Your task to perform on an android device: open sync settings in chrome Image 0: 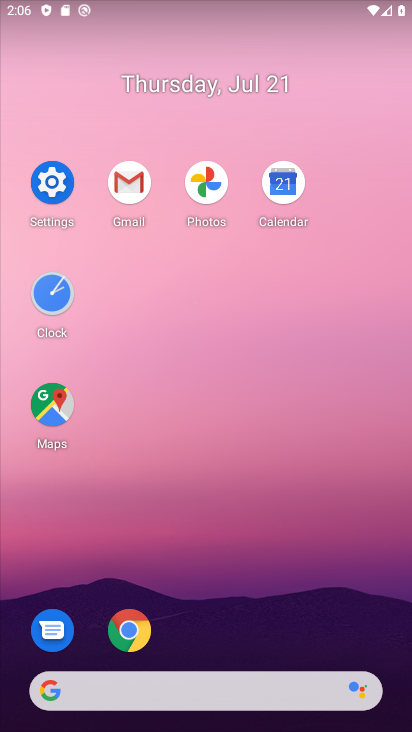
Step 0: click (127, 607)
Your task to perform on an android device: open sync settings in chrome Image 1: 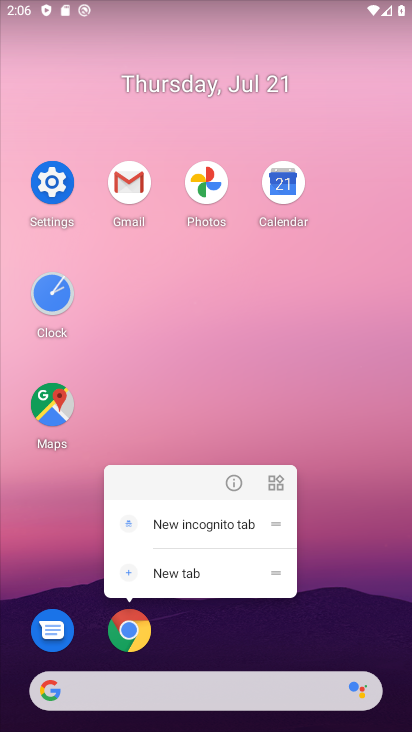
Step 1: click (136, 620)
Your task to perform on an android device: open sync settings in chrome Image 2: 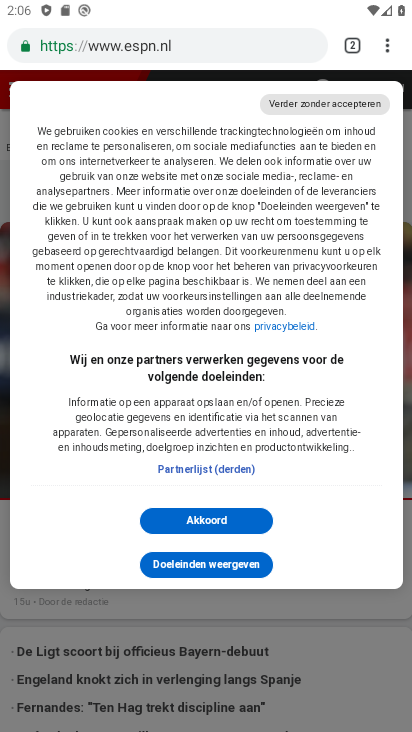
Step 2: click (388, 45)
Your task to perform on an android device: open sync settings in chrome Image 3: 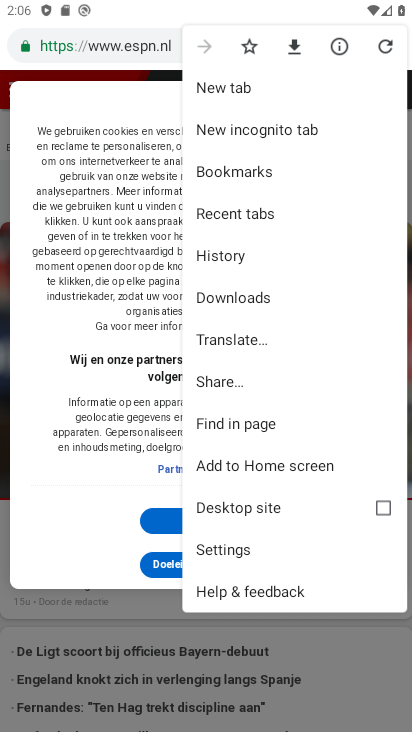
Step 3: click (239, 553)
Your task to perform on an android device: open sync settings in chrome Image 4: 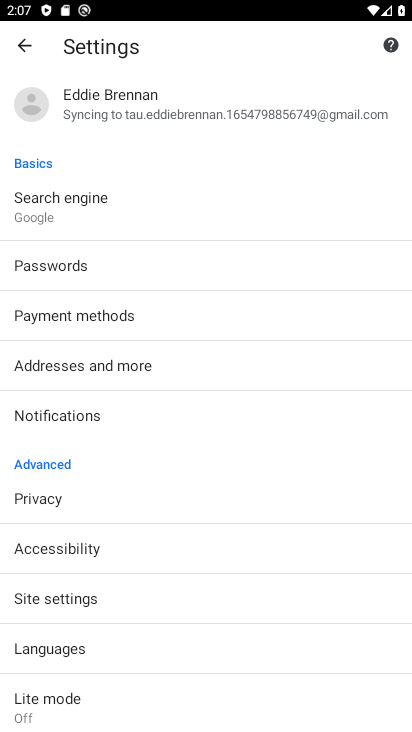
Step 4: drag from (191, 575) to (269, 209)
Your task to perform on an android device: open sync settings in chrome Image 5: 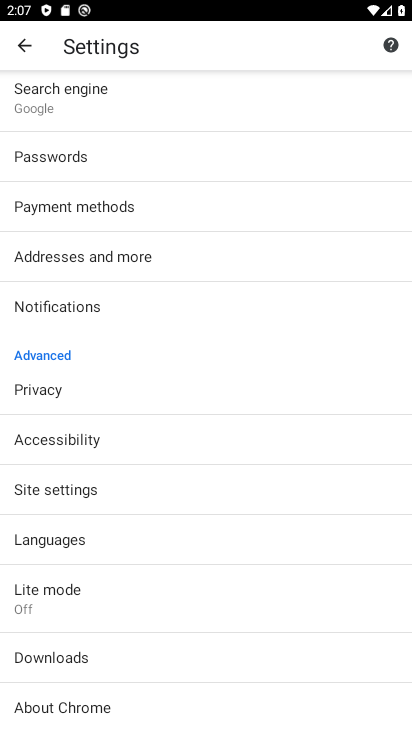
Step 5: click (151, 495)
Your task to perform on an android device: open sync settings in chrome Image 6: 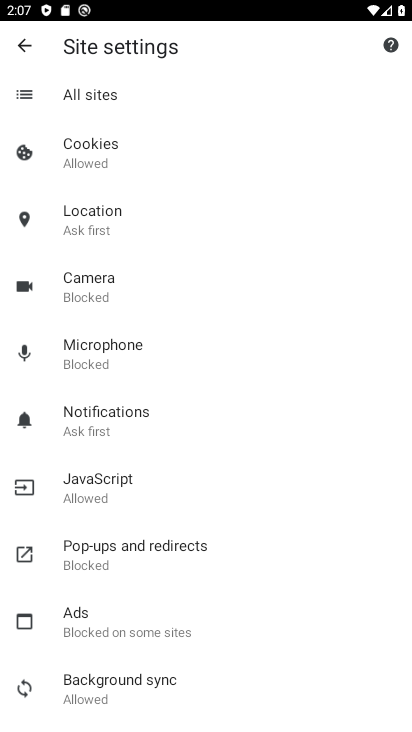
Step 6: click (125, 683)
Your task to perform on an android device: open sync settings in chrome Image 7: 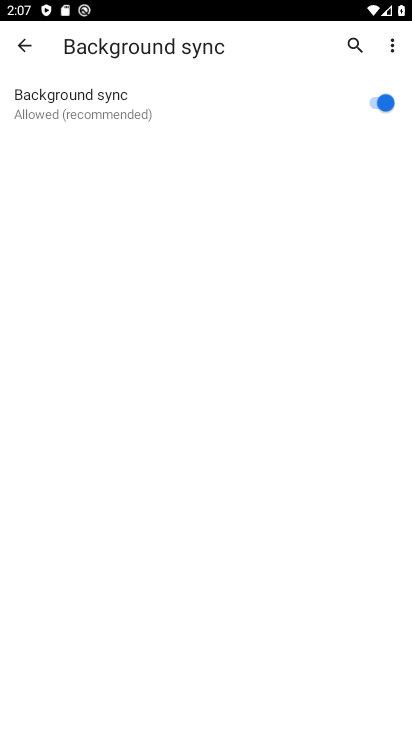
Step 7: task complete